Your task to perform on an android device: Open my contact list Image 0: 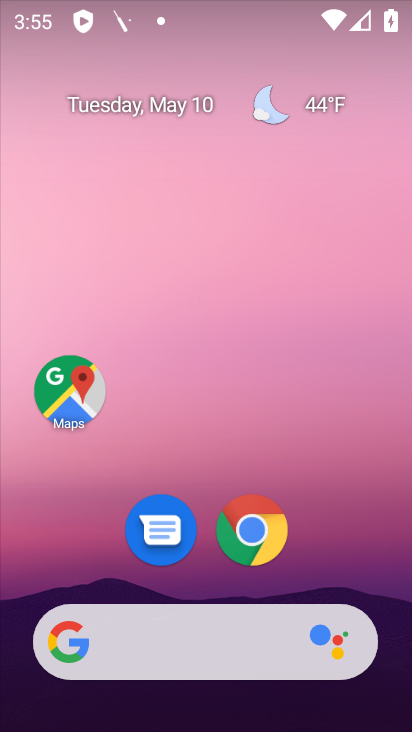
Step 0: drag from (195, 575) to (290, 106)
Your task to perform on an android device: Open my contact list Image 1: 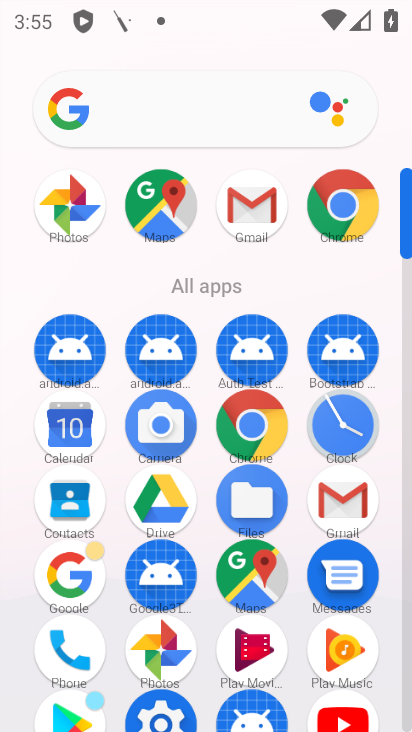
Step 1: click (65, 509)
Your task to perform on an android device: Open my contact list Image 2: 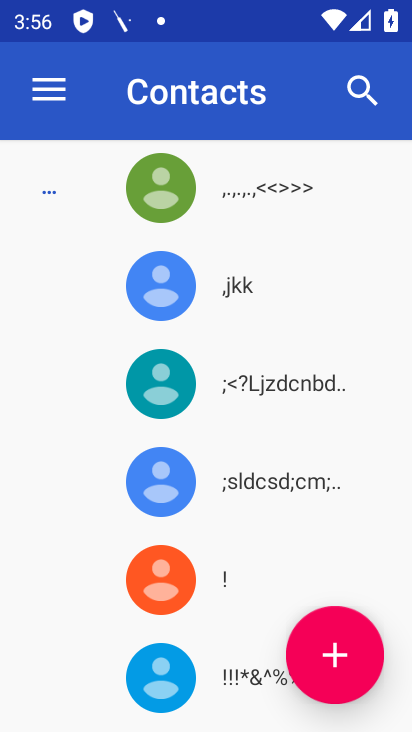
Step 2: task complete